Your task to perform on an android device: Play the last video I watched on Youtube Image 0: 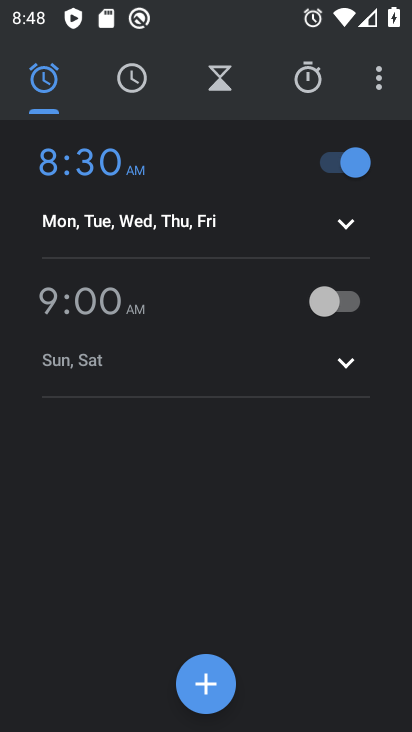
Step 0: press home button
Your task to perform on an android device: Play the last video I watched on Youtube Image 1: 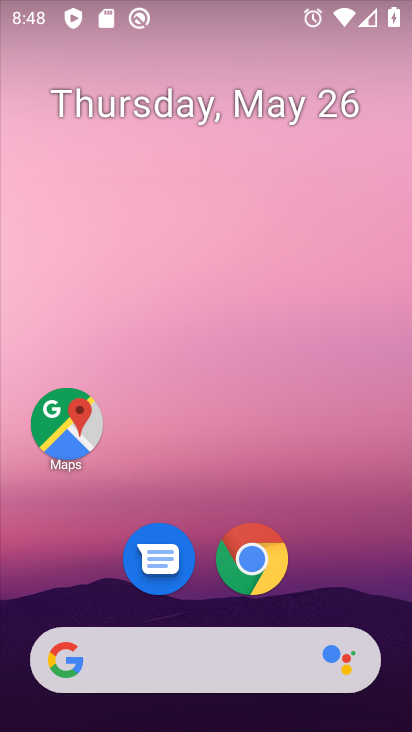
Step 1: drag from (332, 551) to (389, 100)
Your task to perform on an android device: Play the last video I watched on Youtube Image 2: 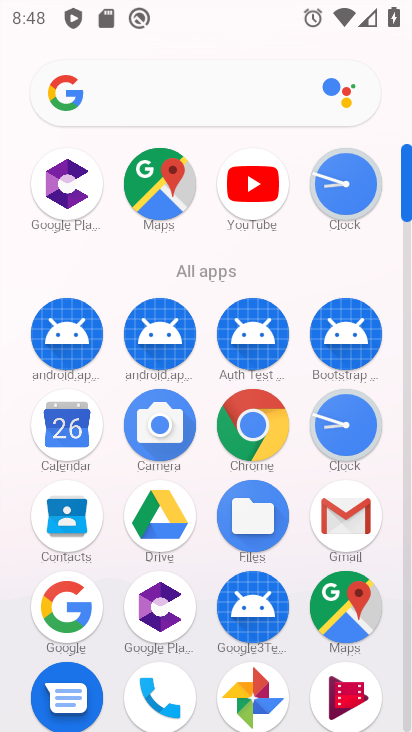
Step 2: click (260, 180)
Your task to perform on an android device: Play the last video I watched on Youtube Image 3: 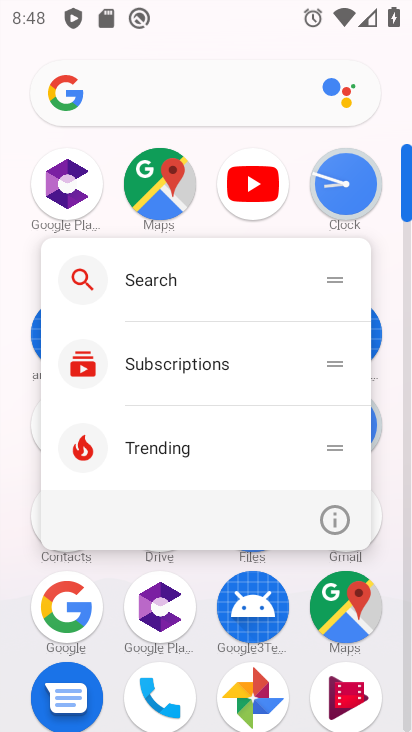
Step 3: click (260, 171)
Your task to perform on an android device: Play the last video I watched on Youtube Image 4: 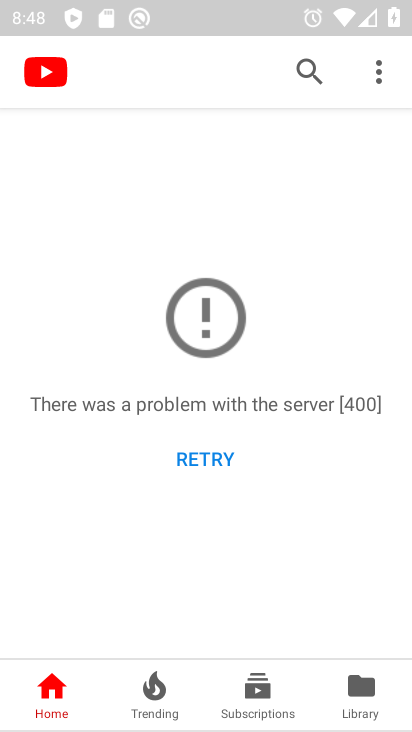
Step 4: click (309, 73)
Your task to perform on an android device: Play the last video I watched on Youtube Image 5: 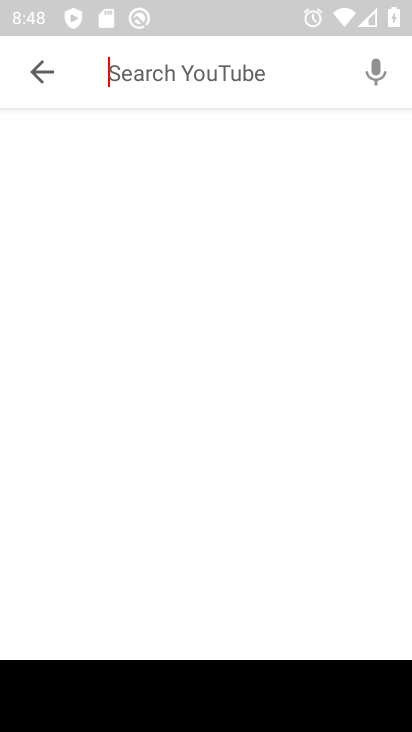
Step 5: task complete